Your task to perform on an android device: move a message to another label in the gmail app Image 0: 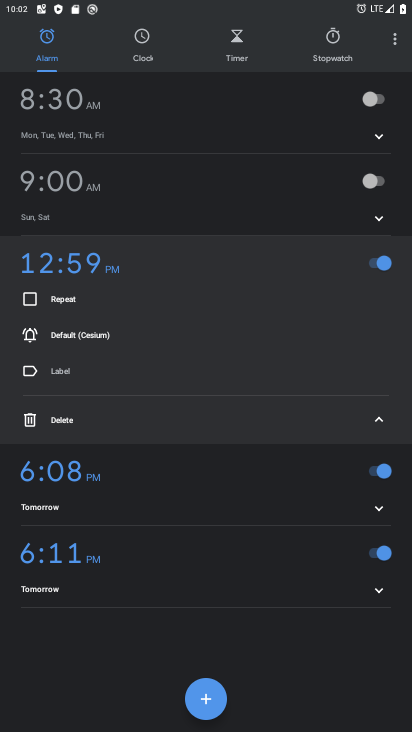
Step 0: press home button
Your task to perform on an android device: move a message to another label in the gmail app Image 1: 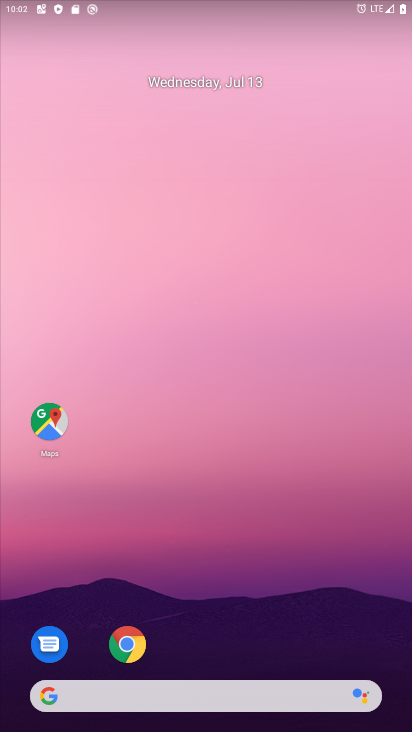
Step 1: drag from (229, 721) to (219, 70)
Your task to perform on an android device: move a message to another label in the gmail app Image 2: 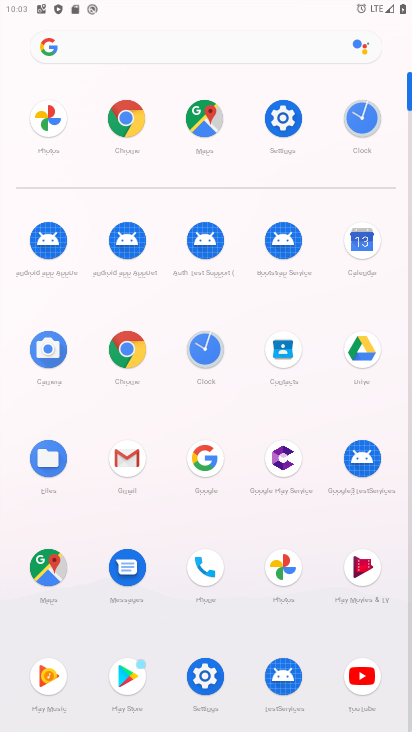
Step 2: click (127, 459)
Your task to perform on an android device: move a message to another label in the gmail app Image 3: 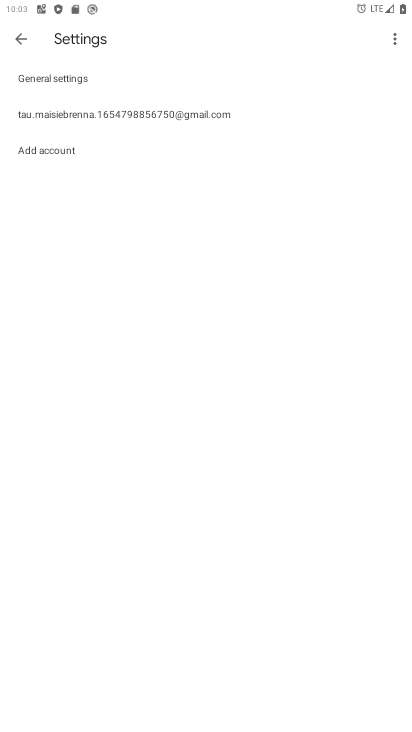
Step 3: click (20, 34)
Your task to perform on an android device: move a message to another label in the gmail app Image 4: 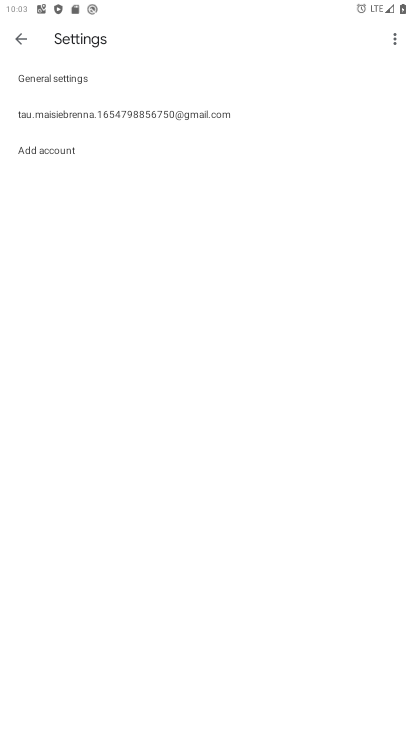
Step 4: click (22, 36)
Your task to perform on an android device: move a message to another label in the gmail app Image 5: 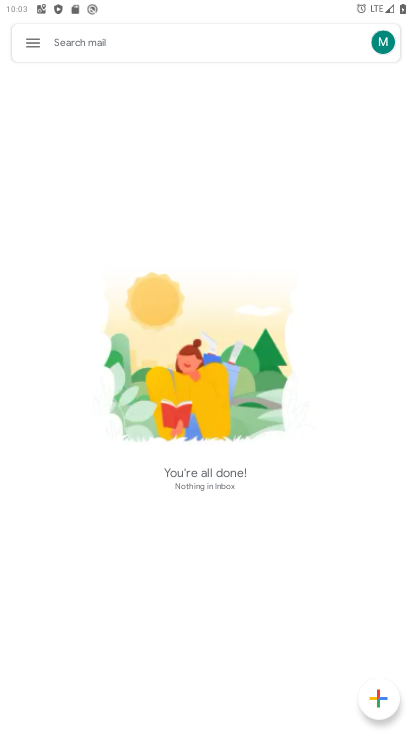
Step 5: task complete